Your task to perform on an android device: Go to network settings Image 0: 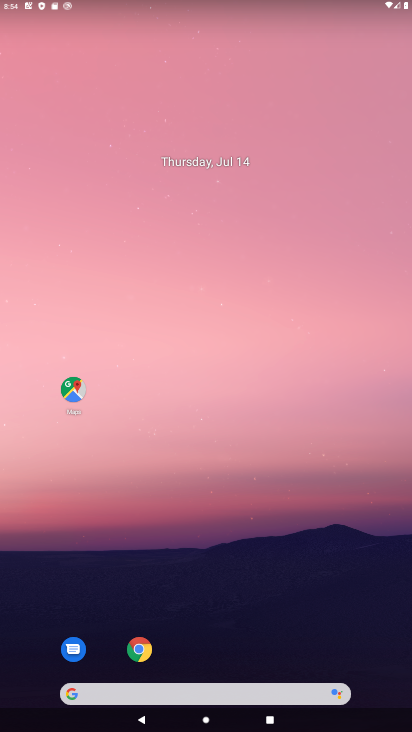
Step 0: drag from (205, 545) to (294, 93)
Your task to perform on an android device: Go to network settings Image 1: 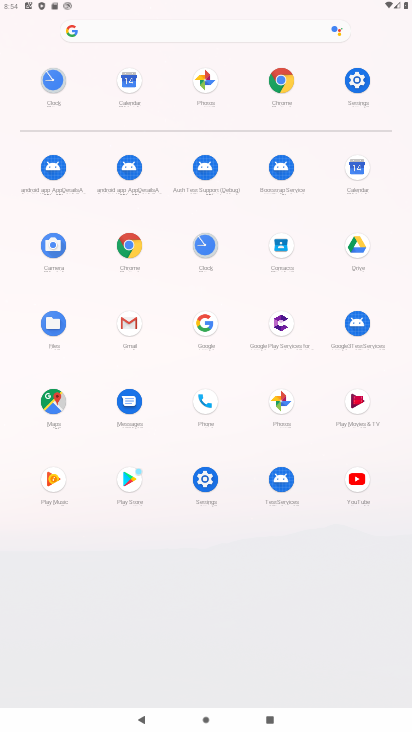
Step 1: click (357, 90)
Your task to perform on an android device: Go to network settings Image 2: 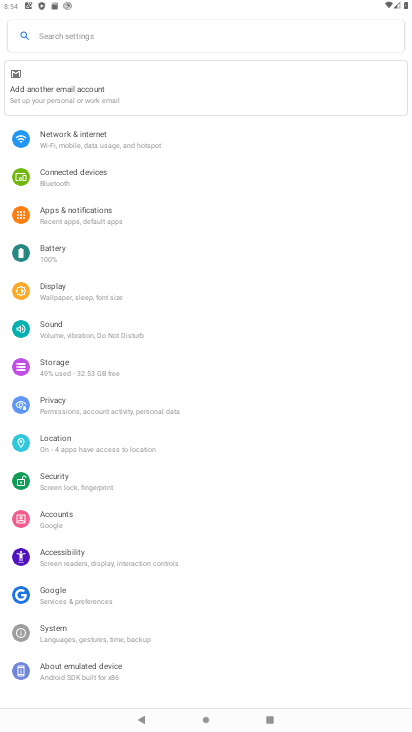
Step 2: click (121, 139)
Your task to perform on an android device: Go to network settings Image 3: 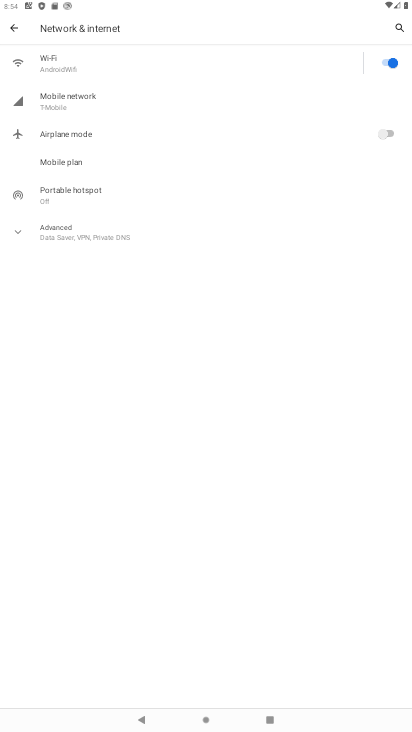
Step 3: task complete